Your task to perform on an android device: Search for sushi restaurants on Maps Image 0: 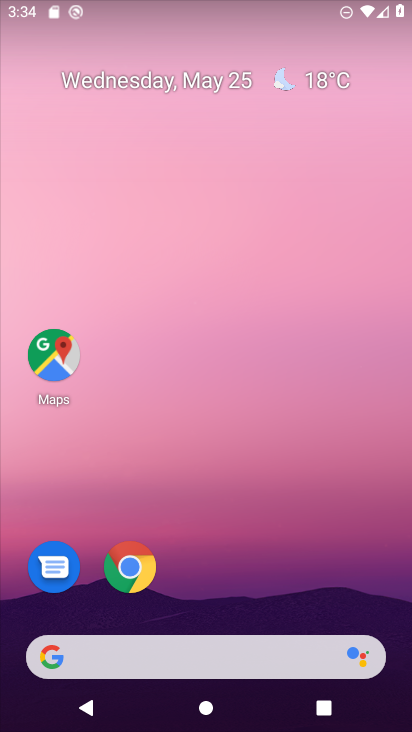
Step 0: drag from (345, 579) to (357, 184)
Your task to perform on an android device: Search for sushi restaurants on Maps Image 1: 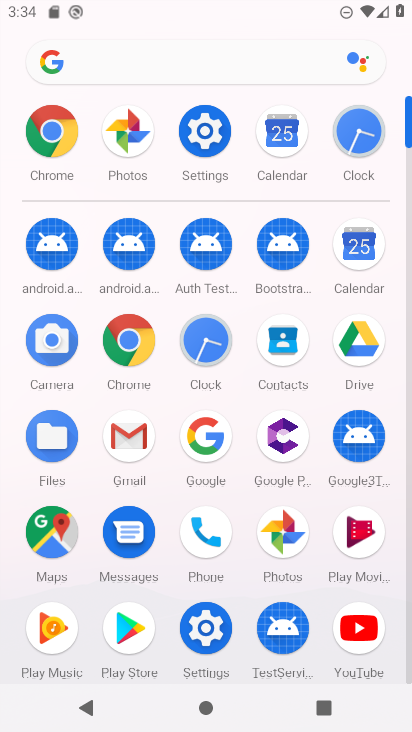
Step 1: click (54, 540)
Your task to perform on an android device: Search for sushi restaurants on Maps Image 2: 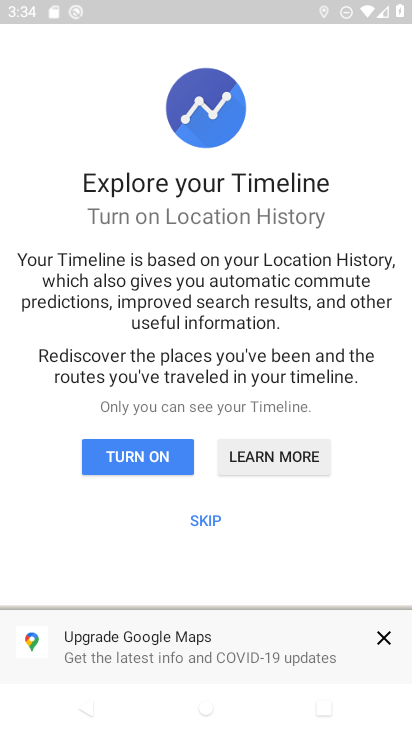
Step 2: click (194, 517)
Your task to perform on an android device: Search for sushi restaurants on Maps Image 3: 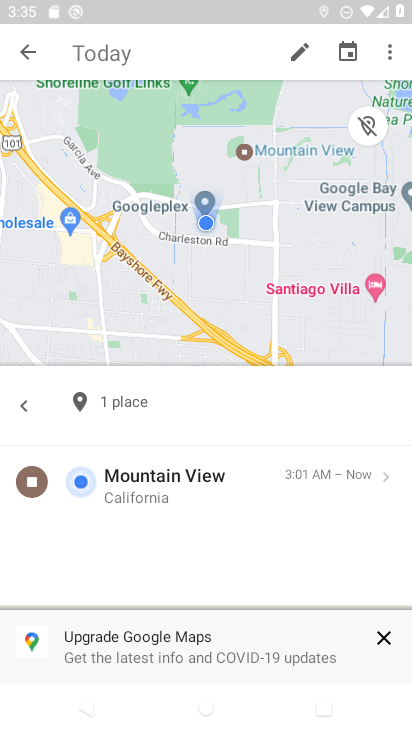
Step 3: click (25, 53)
Your task to perform on an android device: Search for sushi restaurants on Maps Image 4: 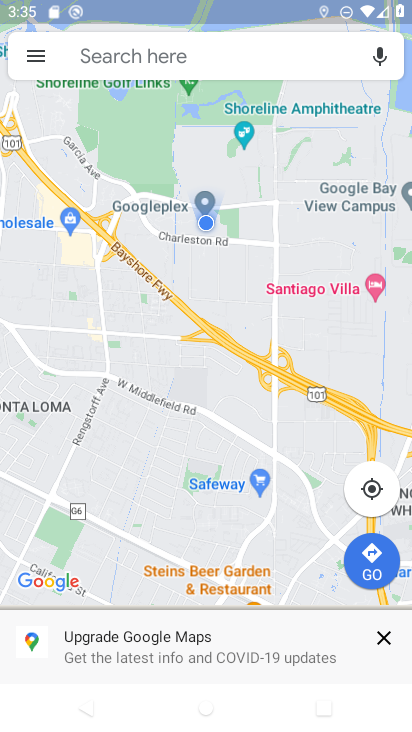
Step 4: click (92, 55)
Your task to perform on an android device: Search for sushi restaurants on Maps Image 5: 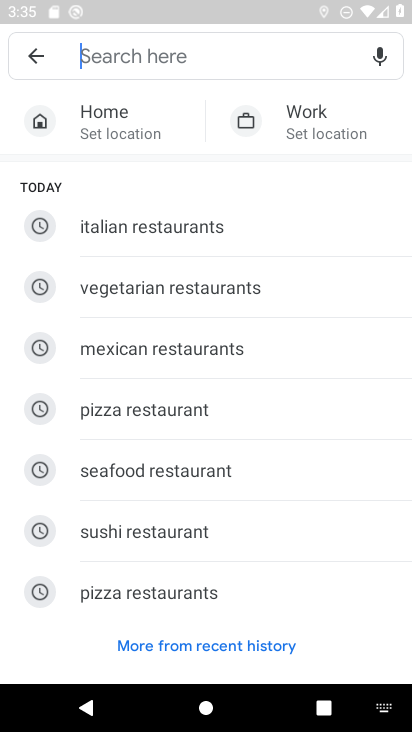
Step 5: type "sushi restaurants"
Your task to perform on an android device: Search for sushi restaurants on Maps Image 6: 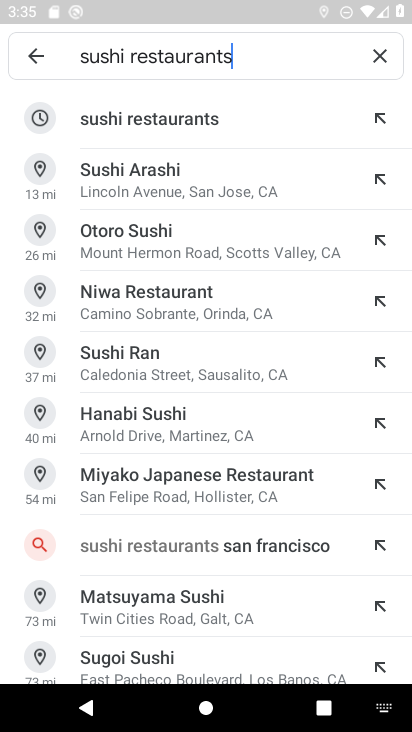
Step 6: click (342, 127)
Your task to perform on an android device: Search for sushi restaurants on Maps Image 7: 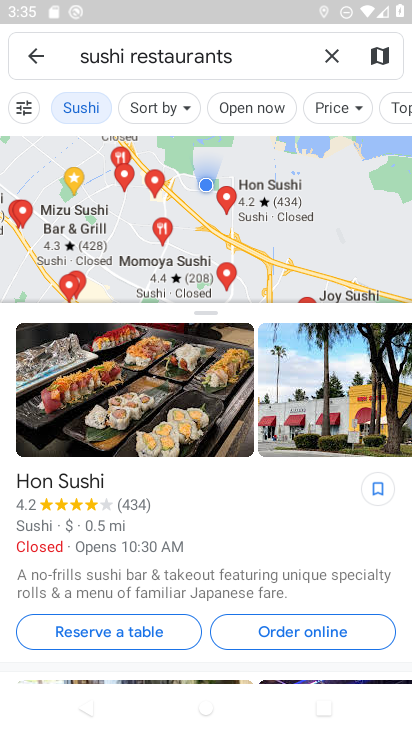
Step 7: task complete